Your task to perform on an android device: Show me popular videos on Youtube Image 0: 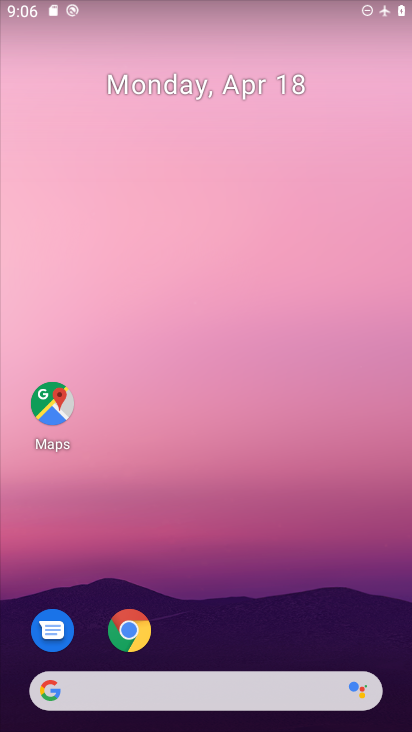
Step 0: drag from (214, 583) to (238, 36)
Your task to perform on an android device: Show me popular videos on Youtube Image 1: 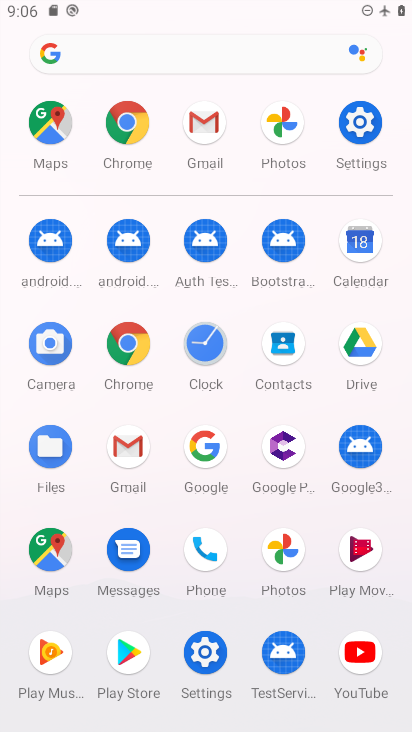
Step 1: click (392, 659)
Your task to perform on an android device: Show me popular videos on Youtube Image 2: 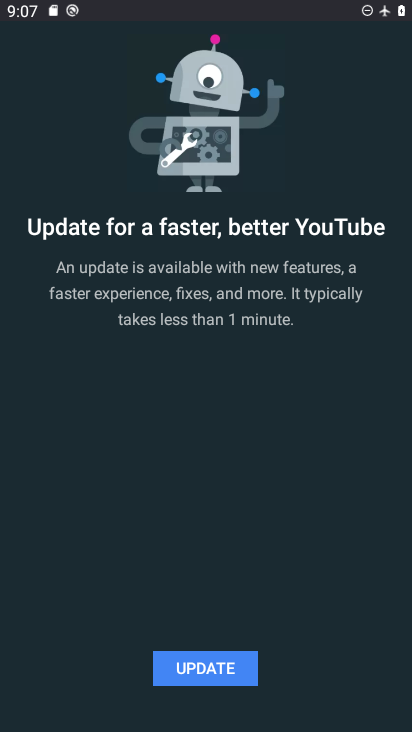
Step 2: click (168, 673)
Your task to perform on an android device: Show me popular videos on Youtube Image 3: 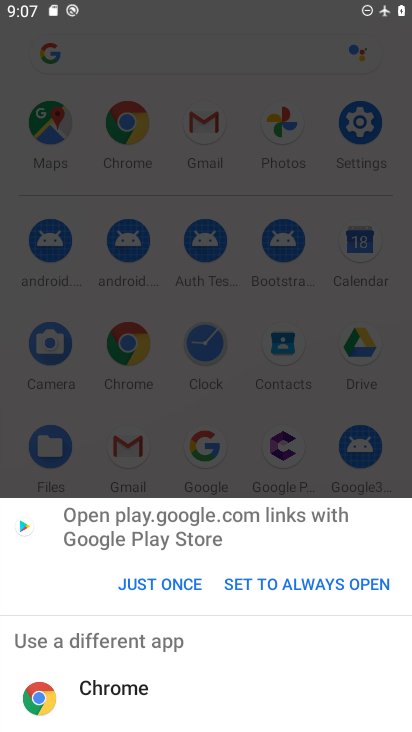
Step 3: click (165, 680)
Your task to perform on an android device: Show me popular videos on Youtube Image 4: 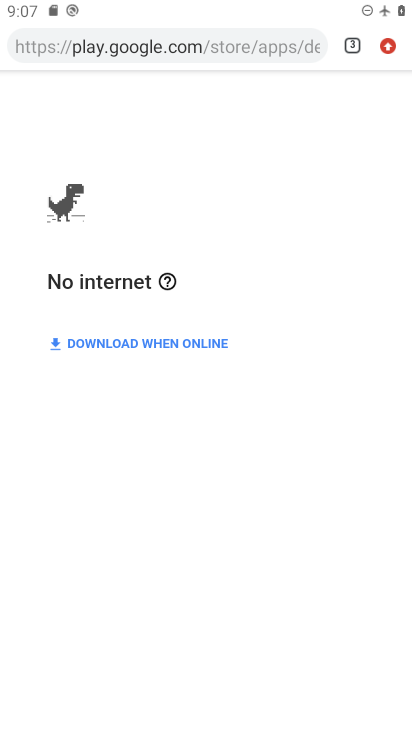
Step 4: task complete